Your task to perform on an android device: visit the assistant section in the google photos Image 0: 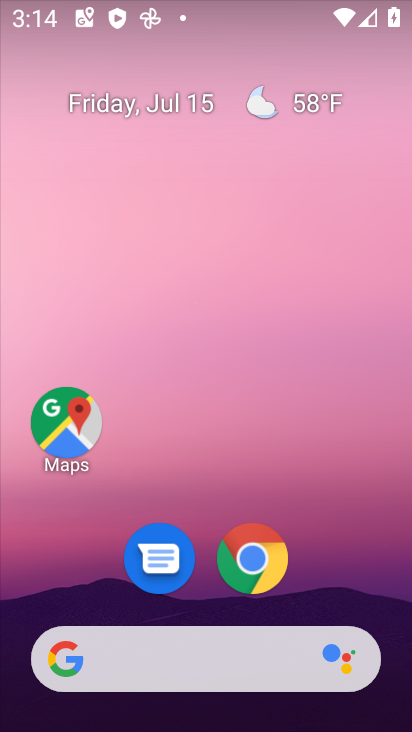
Step 0: drag from (350, 588) to (382, 101)
Your task to perform on an android device: visit the assistant section in the google photos Image 1: 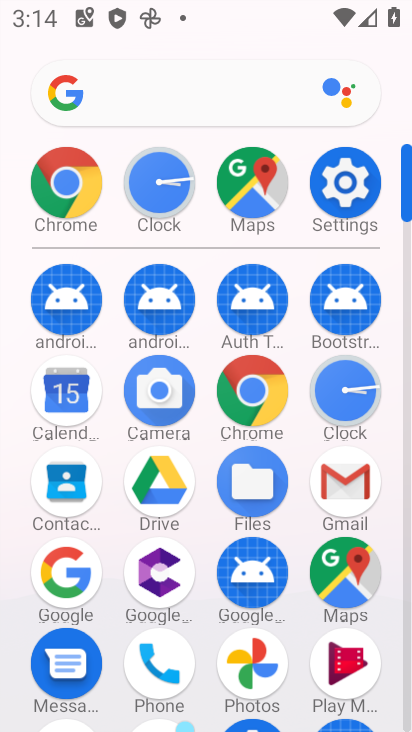
Step 1: click (249, 664)
Your task to perform on an android device: visit the assistant section in the google photos Image 2: 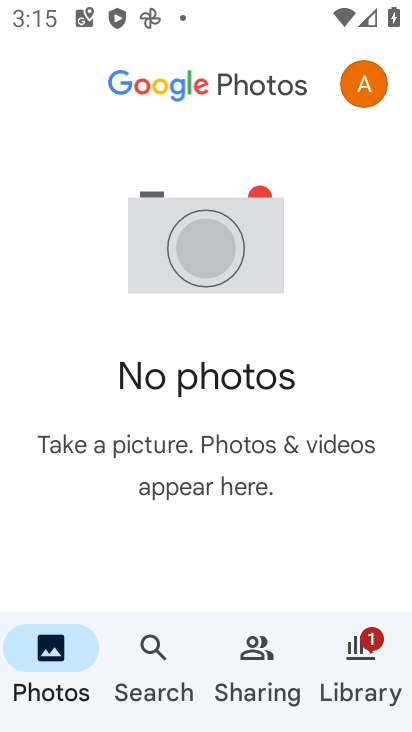
Step 2: click (351, 673)
Your task to perform on an android device: visit the assistant section in the google photos Image 3: 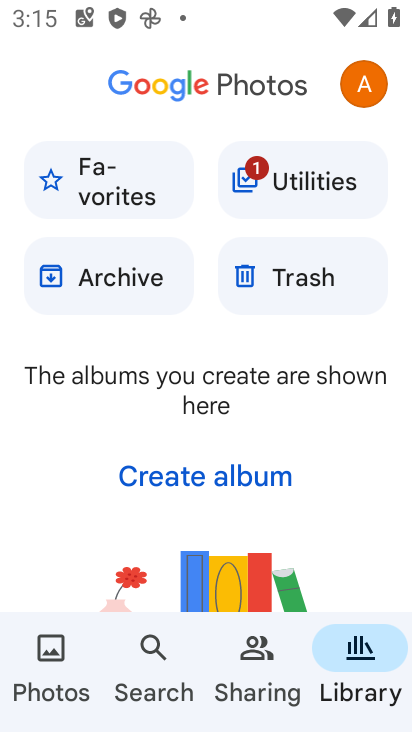
Step 3: task complete